Your task to perform on an android device: What's the weather going to be tomorrow? Image 0: 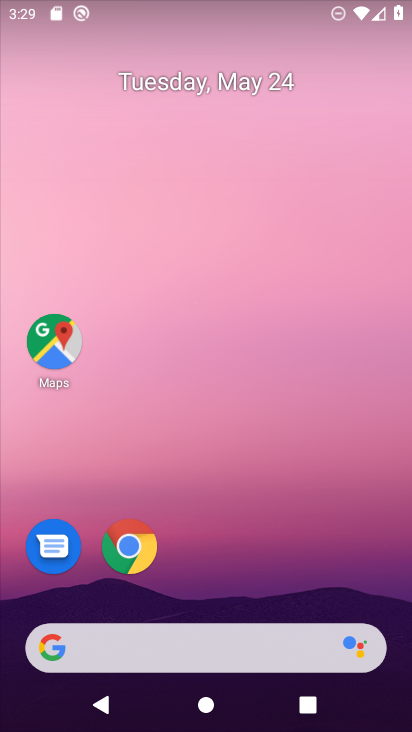
Step 0: click (177, 36)
Your task to perform on an android device: What's the weather going to be tomorrow? Image 1: 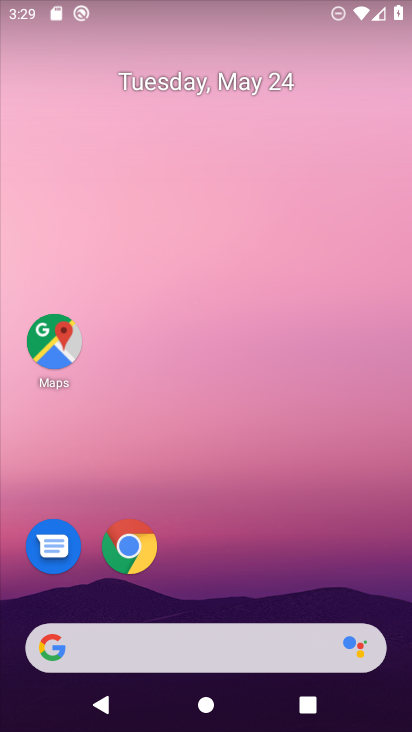
Step 1: drag from (249, 516) to (183, 0)
Your task to perform on an android device: What's the weather going to be tomorrow? Image 2: 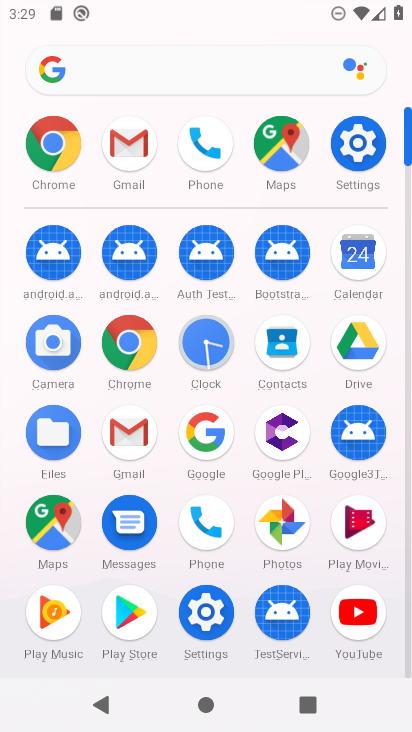
Step 2: click (212, 430)
Your task to perform on an android device: What's the weather going to be tomorrow? Image 3: 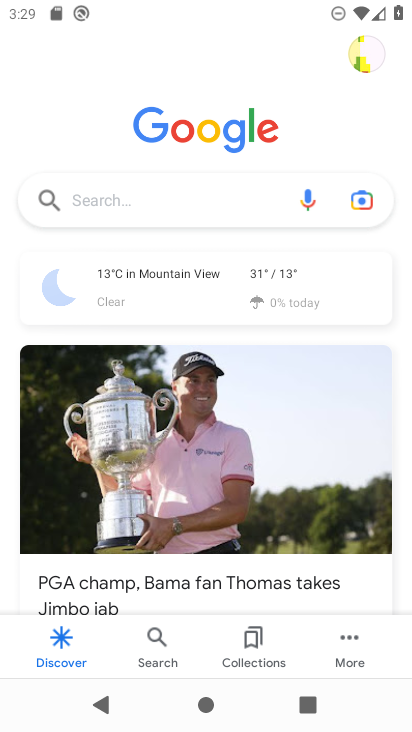
Step 3: click (281, 276)
Your task to perform on an android device: What's the weather going to be tomorrow? Image 4: 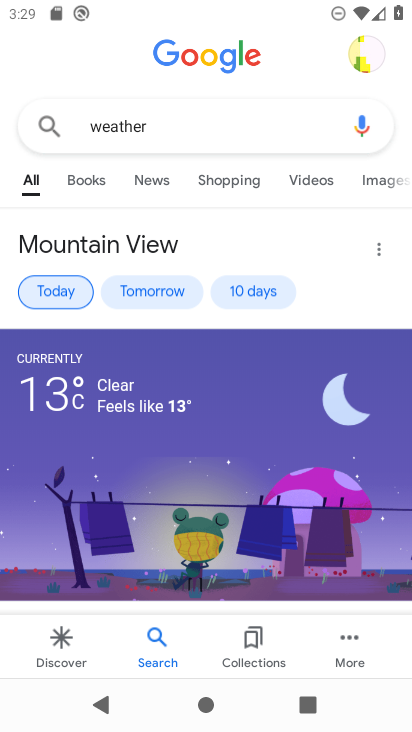
Step 4: click (160, 293)
Your task to perform on an android device: What's the weather going to be tomorrow? Image 5: 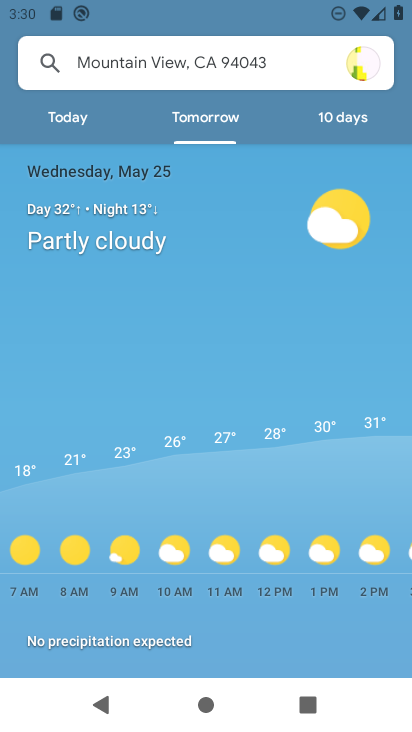
Step 5: task complete